Your task to perform on an android device: visit the assistant section in the google photos Image 0: 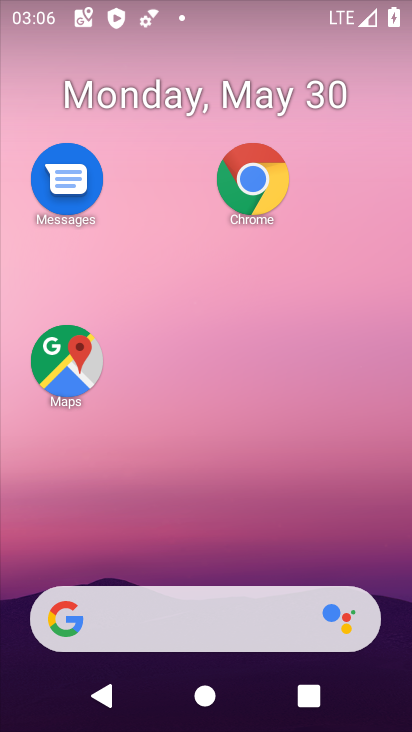
Step 0: drag from (218, 529) to (82, 0)
Your task to perform on an android device: visit the assistant section in the google photos Image 1: 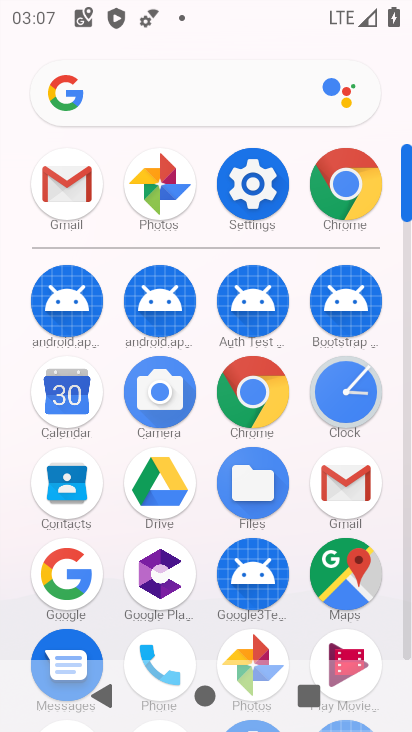
Step 1: click (67, 576)
Your task to perform on an android device: visit the assistant section in the google photos Image 2: 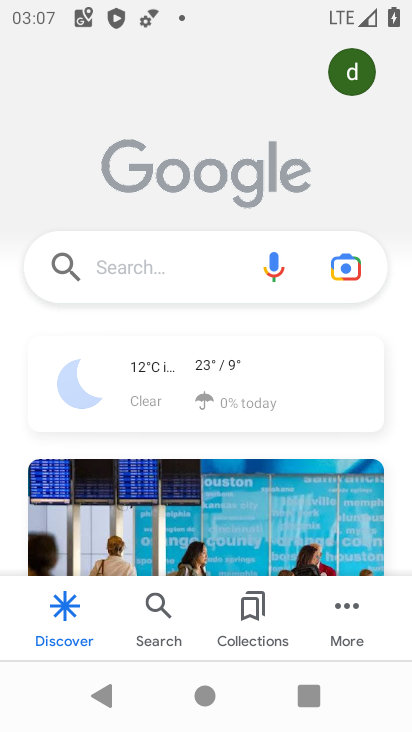
Step 2: click (345, 626)
Your task to perform on an android device: visit the assistant section in the google photos Image 3: 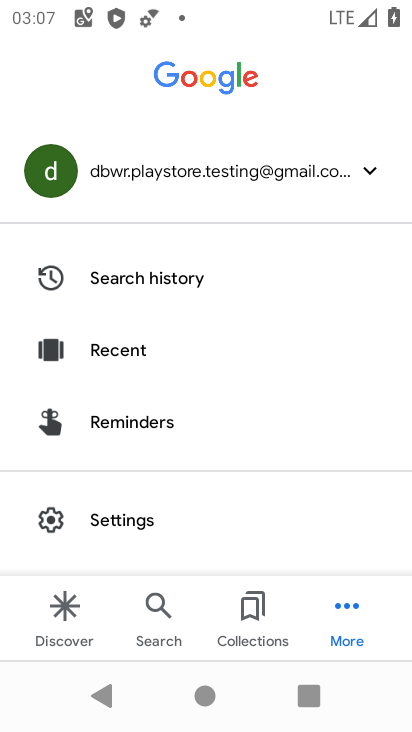
Step 3: press home button
Your task to perform on an android device: visit the assistant section in the google photos Image 4: 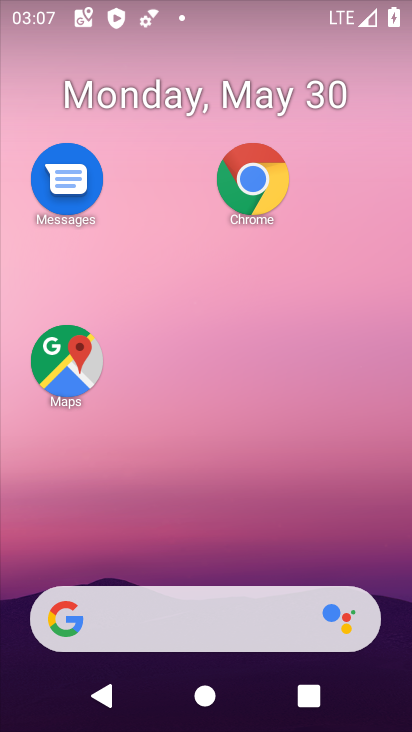
Step 4: drag from (270, 526) to (239, 0)
Your task to perform on an android device: visit the assistant section in the google photos Image 5: 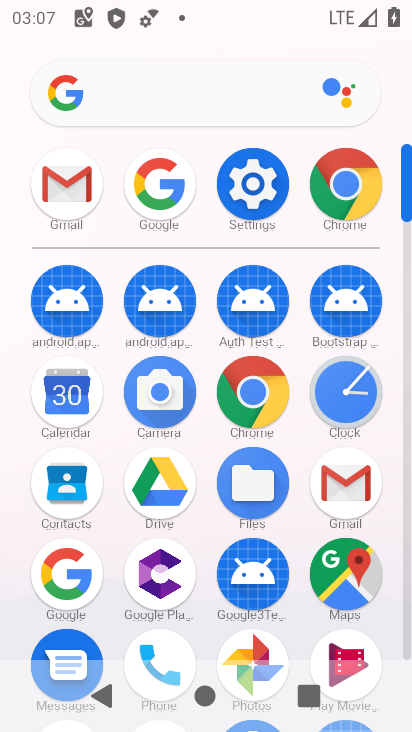
Step 5: click (249, 651)
Your task to perform on an android device: visit the assistant section in the google photos Image 6: 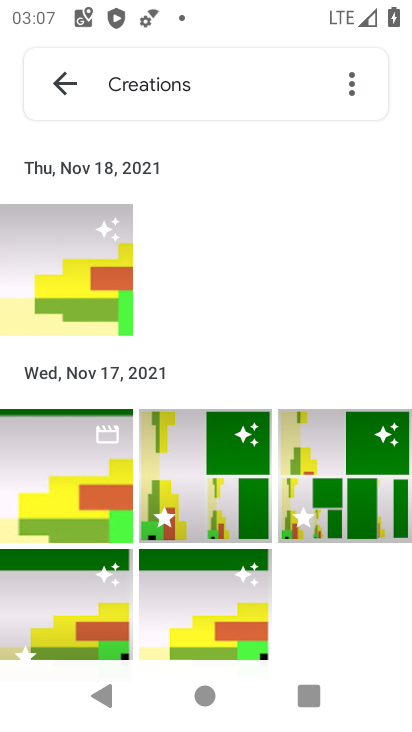
Step 6: click (54, 85)
Your task to perform on an android device: visit the assistant section in the google photos Image 7: 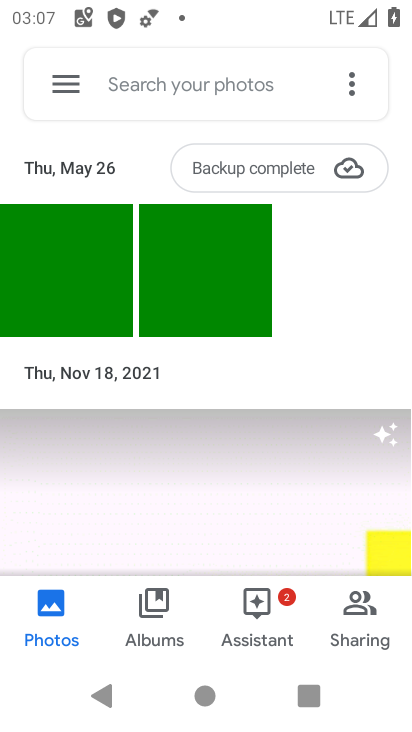
Step 7: click (244, 625)
Your task to perform on an android device: visit the assistant section in the google photos Image 8: 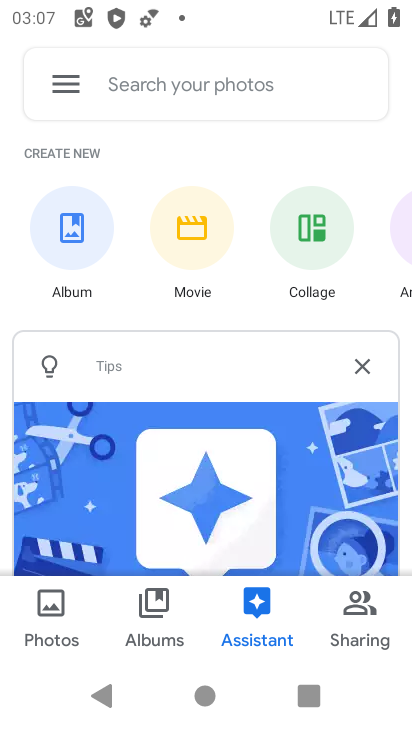
Step 8: task complete